Your task to perform on an android device: Find coffee shops on Maps Image 0: 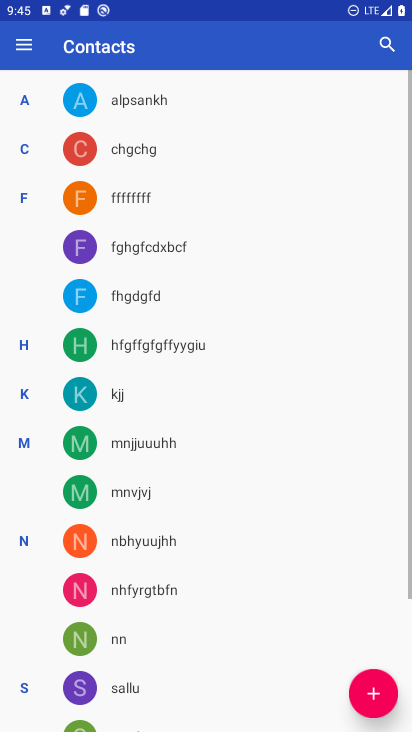
Step 0: press home button
Your task to perform on an android device: Find coffee shops on Maps Image 1: 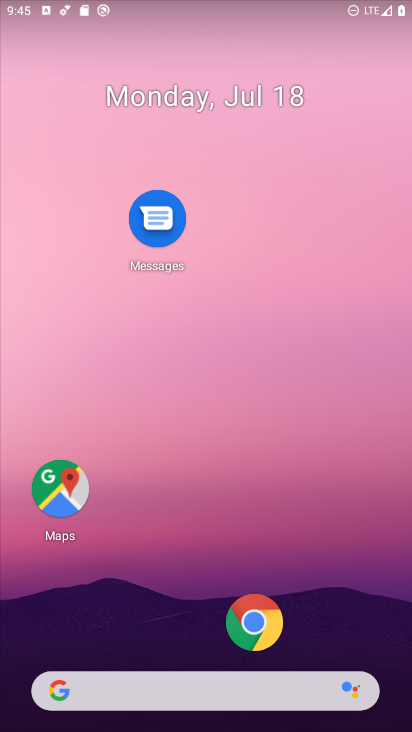
Step 1: drag from (270, 635) to (298, 149)
Your task to perform on an android device: Find coffee shops on Maps Image 2: 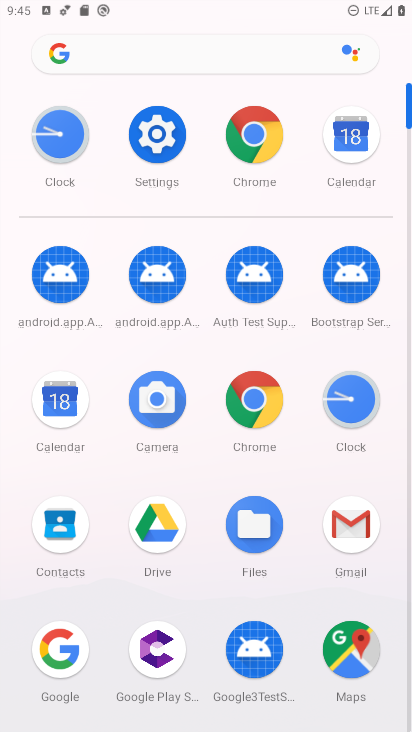
Step 2: click (351, 645)
Your task to perform on an android device: Find coffee shops on Maps Image 3: 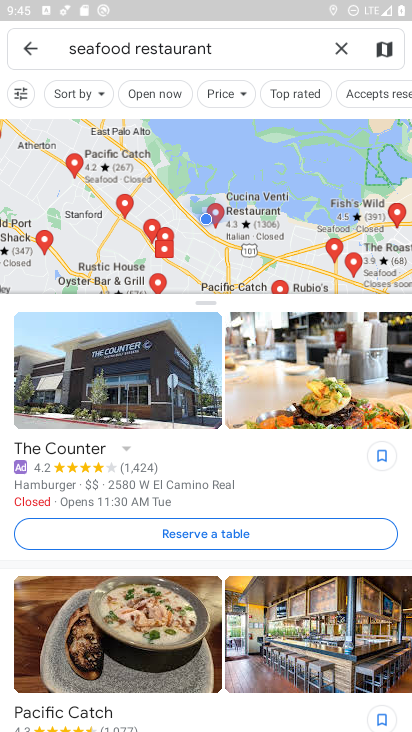
Step 3: click (343, 53)
Your task to perform on an android device: Find coffee shops on Maps Image 4: 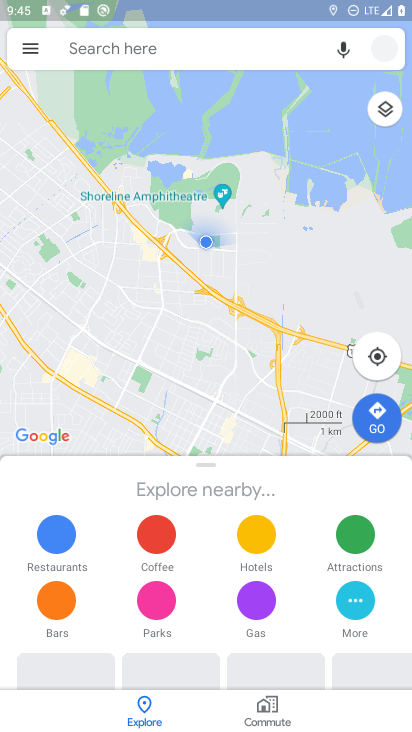
Step 4: click (254, 53)
Your task to perform on an android device: Find coffee shops on Maps Image 5: 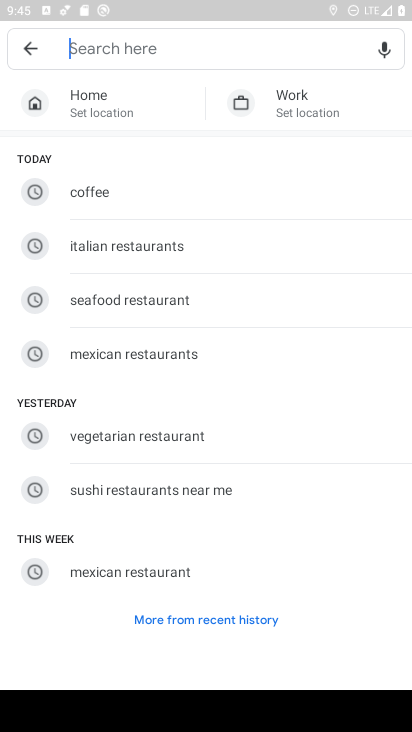
Step 5: type "coffee shops"
Your task to perform on an android device: Find coffee shops on Maps Image 6: 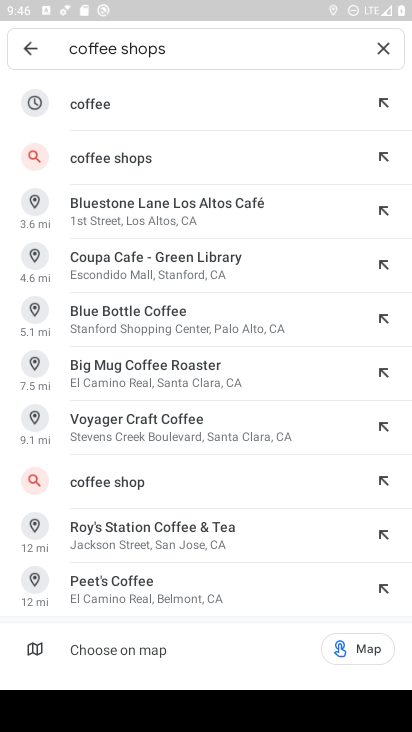
Step 6: click (146, 163)
Your task to perform on an android device: Find coffee shops on Maps Image 7: 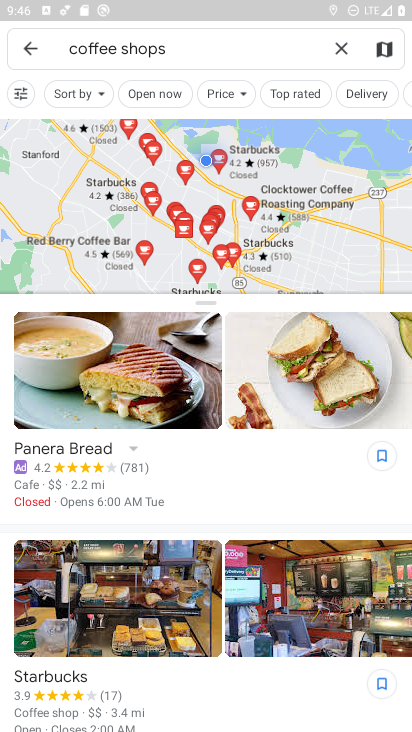
Step 7: task complete